Your task to perform on an android device: turn on javascript in the chrome app Image 0: 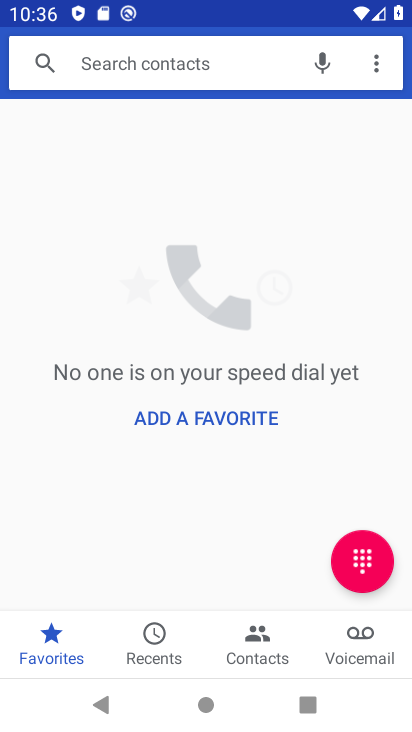
Step 0: press home button
Your task to perform on an android device: turn on javascript in the chrome app Image 1: 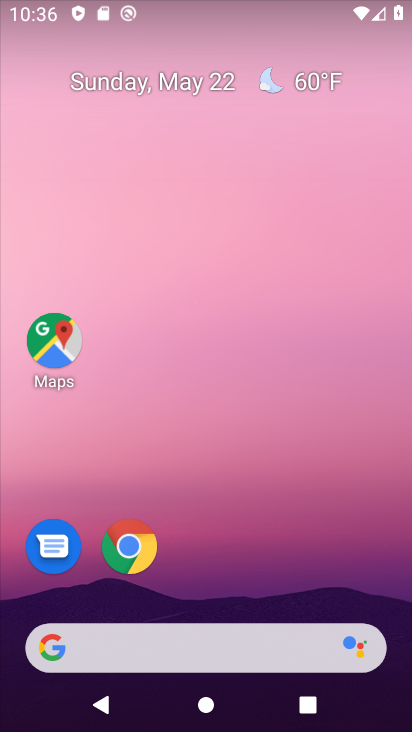
Step 1: click (132, 547)
Your task to perform on an android device: turn on javascript in the chrome app Image 2: 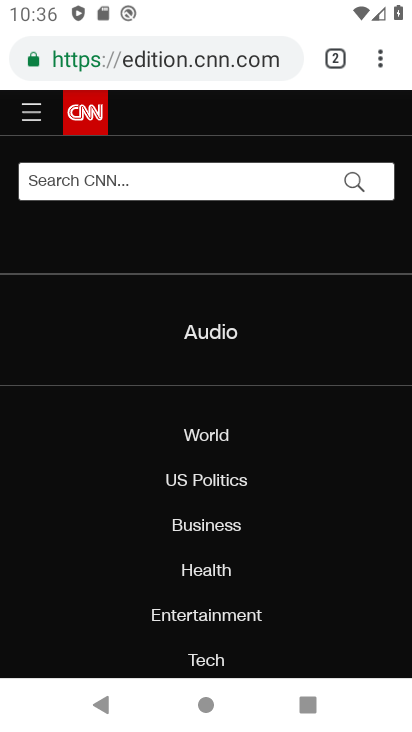
Step 2: click (378, 64)
Your task to perform on an android device: turn on javascript in the chrome app Image 3: 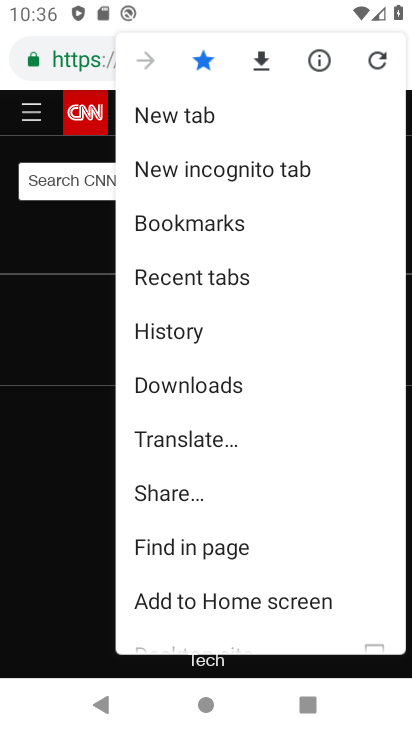
Step 3: drag from (207, 597) to (208, 205)
Your task to perform on an android device: turn on javascript in the chrome app Image 4: 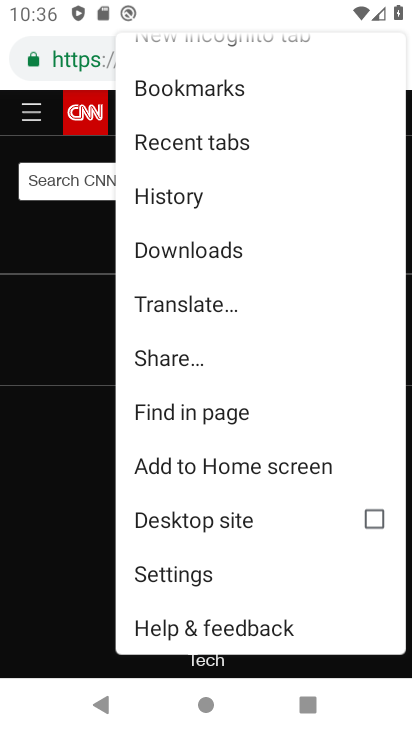
Step 4: click (183, 571)
Your task to perform on an android device: turn on javascript in the chrome app Image 5: 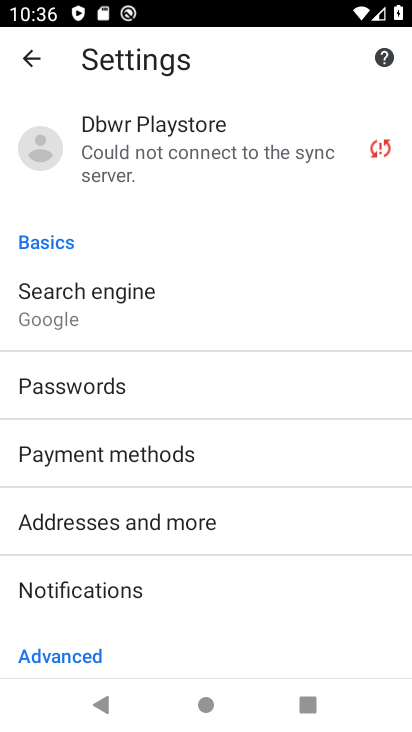
Step 5: drag from (90, 636) to (101, 317)
Your task to perform on an android device: turn on javascript in the chrome app Image 6: 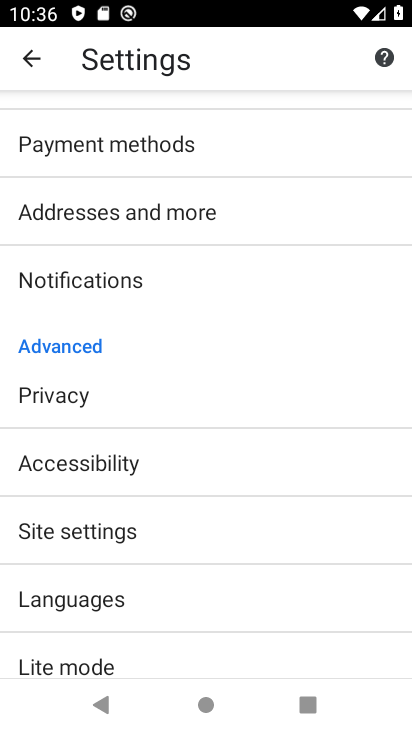
Step 6: click (80, 528)
Your task to perform on an android device: turn on javascript in the chrome app Image 7: 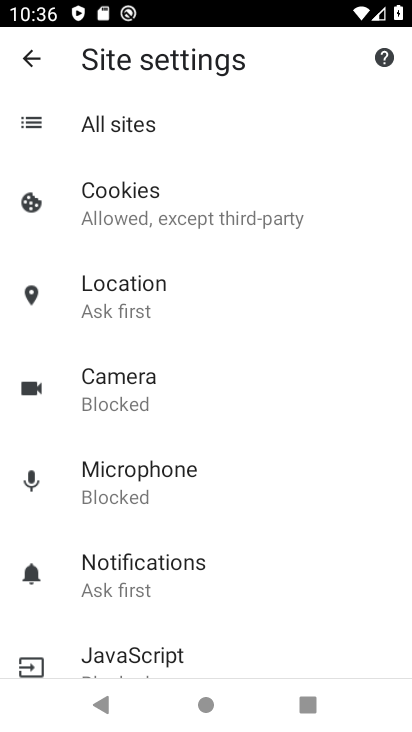
Step 7: click (114, 644)
Your task to perform on an android device: turn on javascript in the chrome app Image 8: 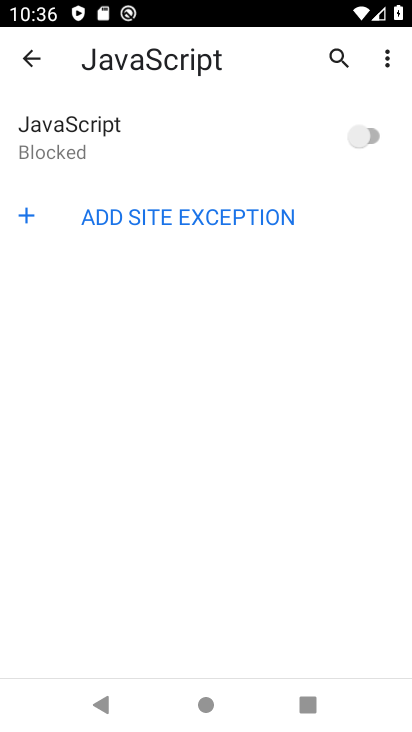
Step 8: click (376, 139)
Your task to perform on an android device: turn on javascript in the chrome app Image 9: 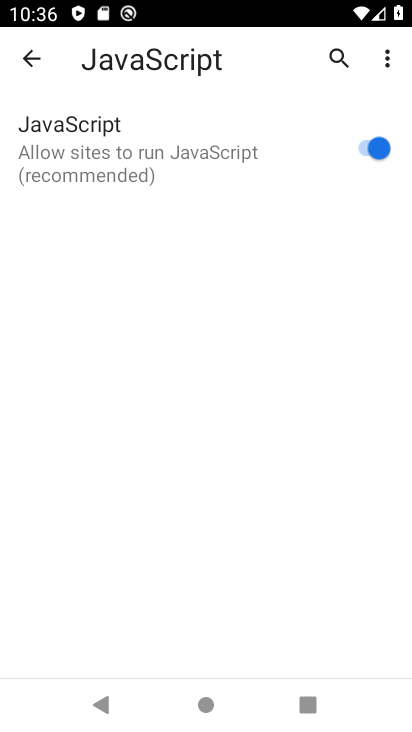
Step 9: task complete